Your task to perform on an android device: add a contact in the contacts app Image 0: 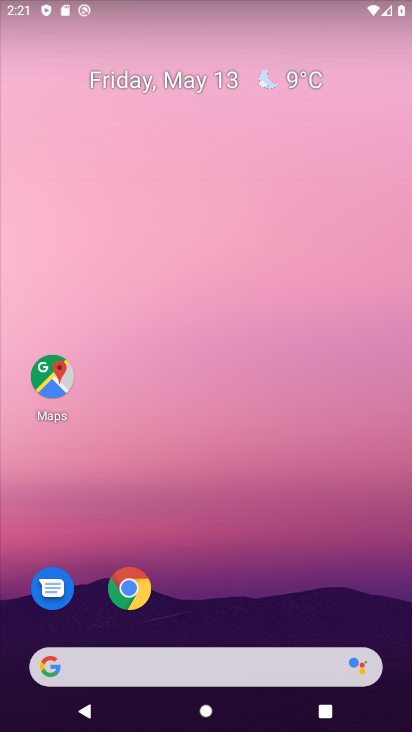
Step 0: drag from (165, 651) to (185, 46)
Your task to perform on an android device: add a contact in the contacts app Image 1: 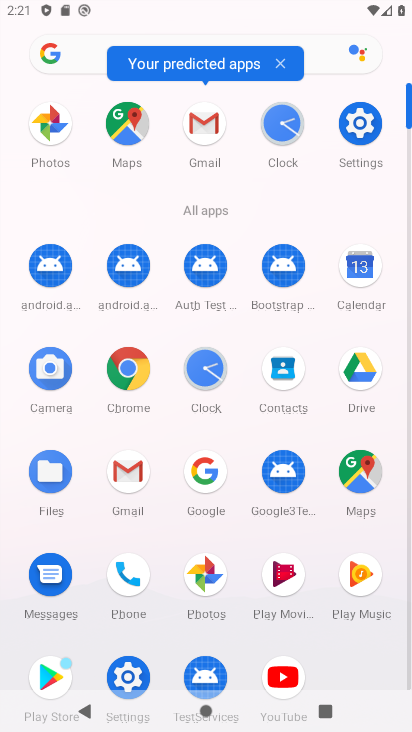
Step 1: click (270, 381)
Your task to perform on an android device: add a contact in the contacts app Image 2: 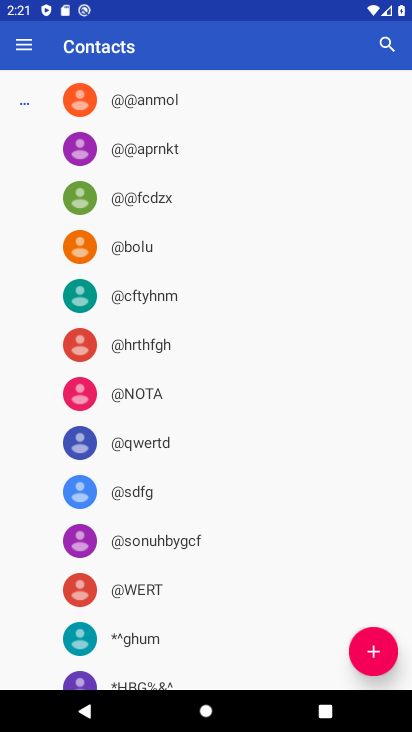
Step 2: click (374, 663)
Your task to perform on an android device: add a contact in the contacts app Image 3: 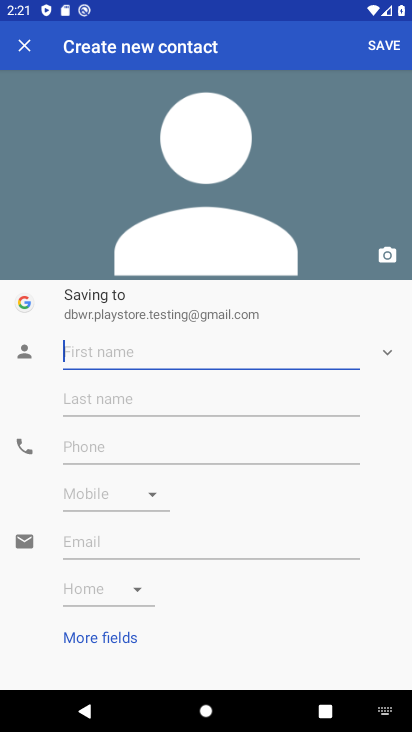
Step 3: type "kxvcxc"
Your task to perform on an android device: add a contact in the contacts app Image 4: 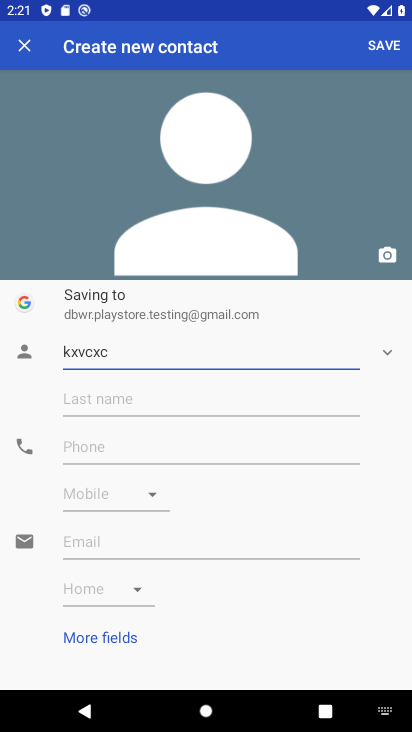
Step 4: click (191, 421)
Your task to perform on an android device: add a contact in the contacts app Image 5: 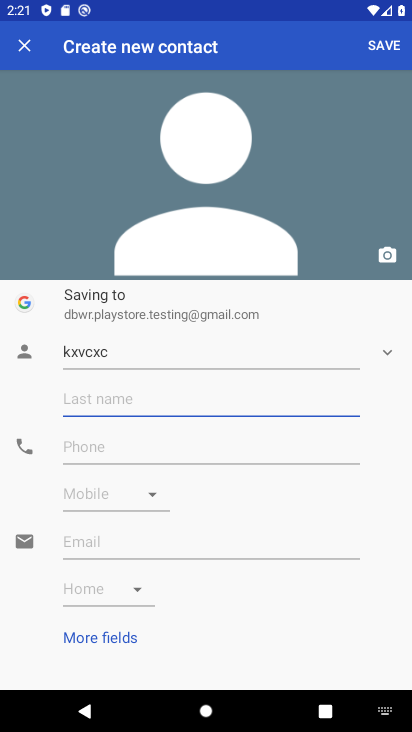
Step 5: click (209, 458)
Your task to perform on an android device: add a contact in the contacts app Image 6: 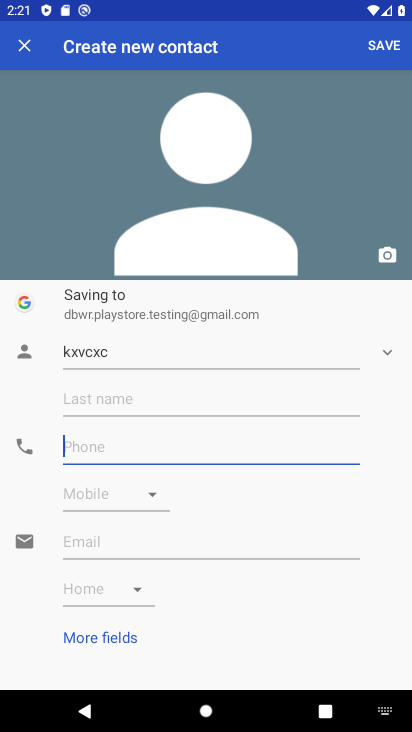
Step 6: type "475983453"
Your task to perform on an android device: add a contact in the contacts app Image 7: 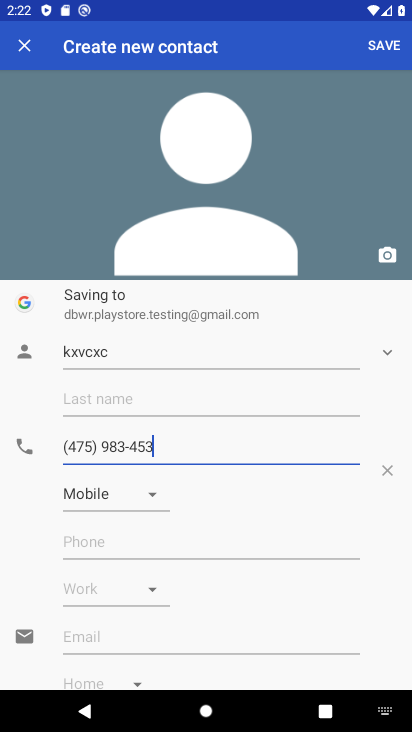
Step 7: click (375, 44)
Your task to perform on an android device: add a contact in the contacts app Image 8: 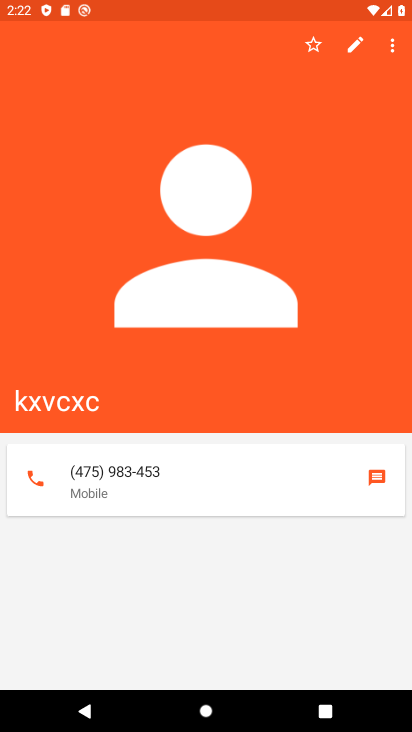
Step 8: task complete